Your task to perform on an android device: Open calendar and show me the first week of next month Image 0: 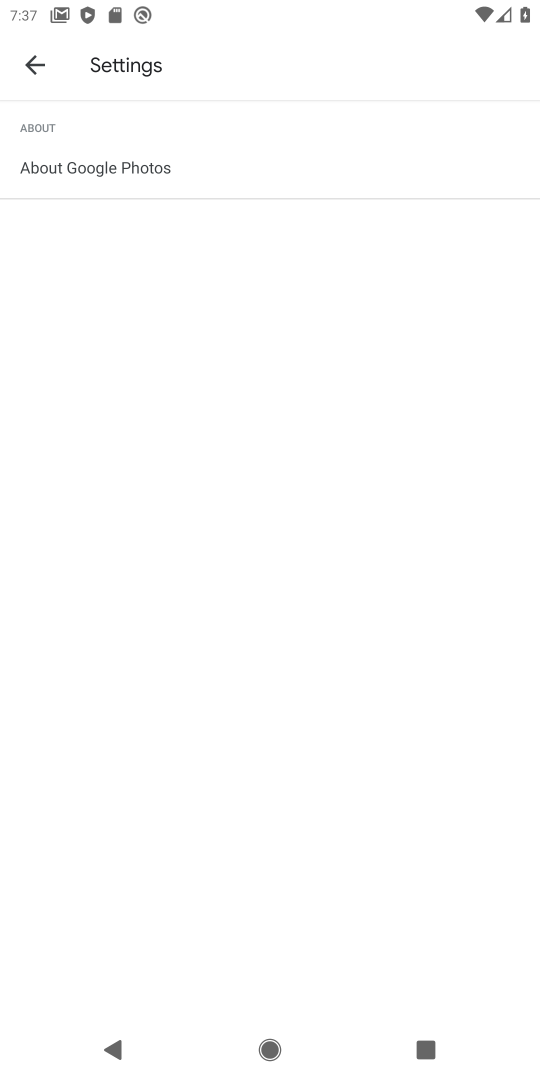
Step 0: press home button
Your task to perform on an android device: Open calendar and show me the first week of next month Image 1: 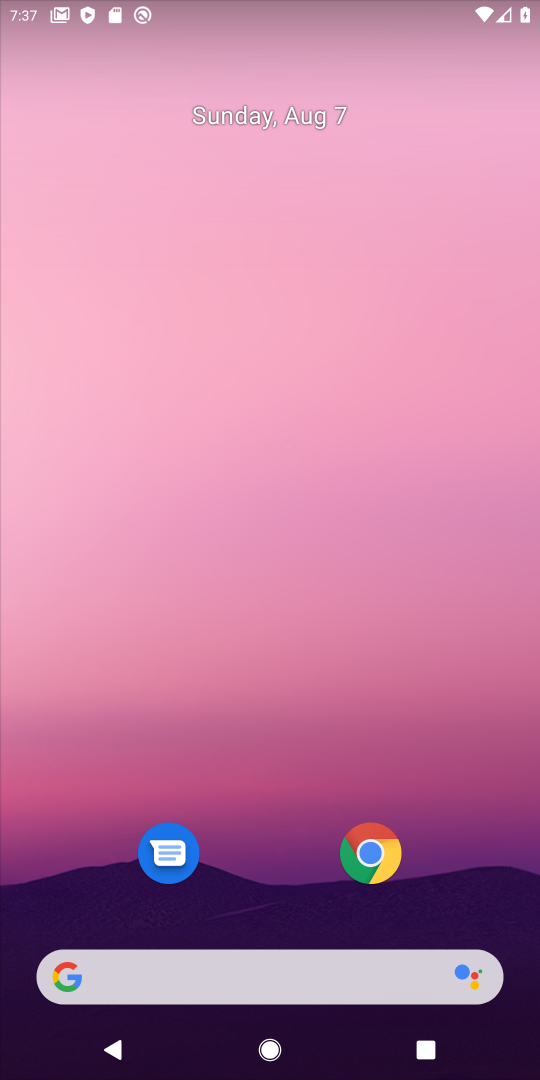
Step 1: drag from (262, 836) to (272, 5)
Your task to perform on an android device: Open calendar and show me the first week of next month Image 2: 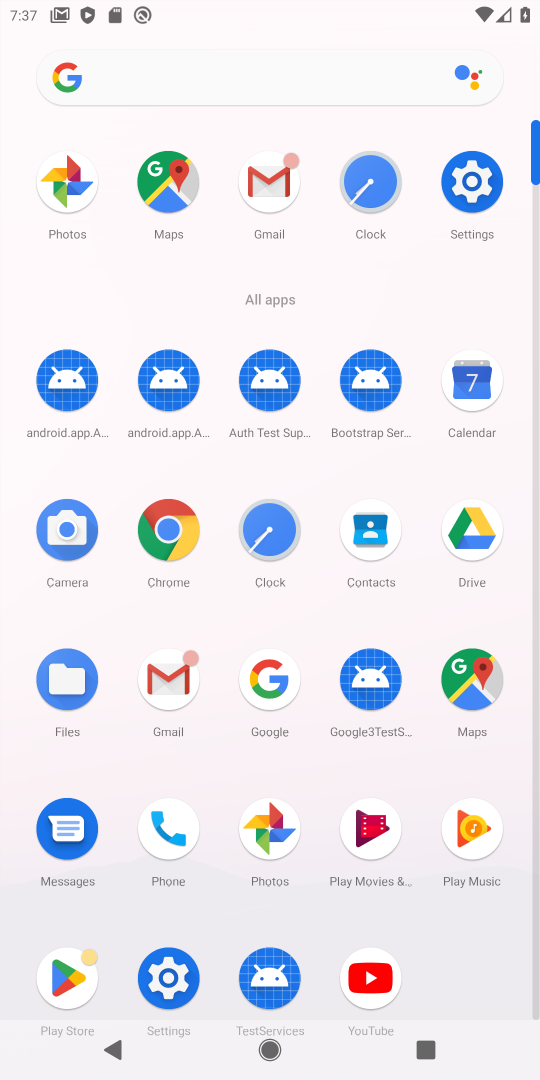
Step 2: click (471, 403)
Your task to perform on an android device: Open calendar and show me the first week of next month Image 3: 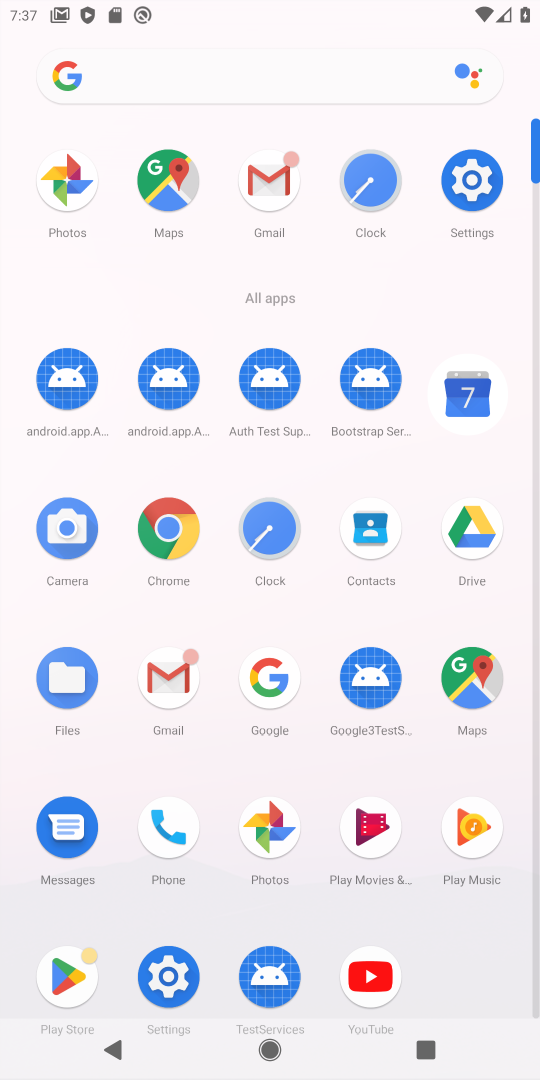
Step 3: click (483, 407)
Your task to perform on an android device: Open calendar and show me the first week of next month Image 4: 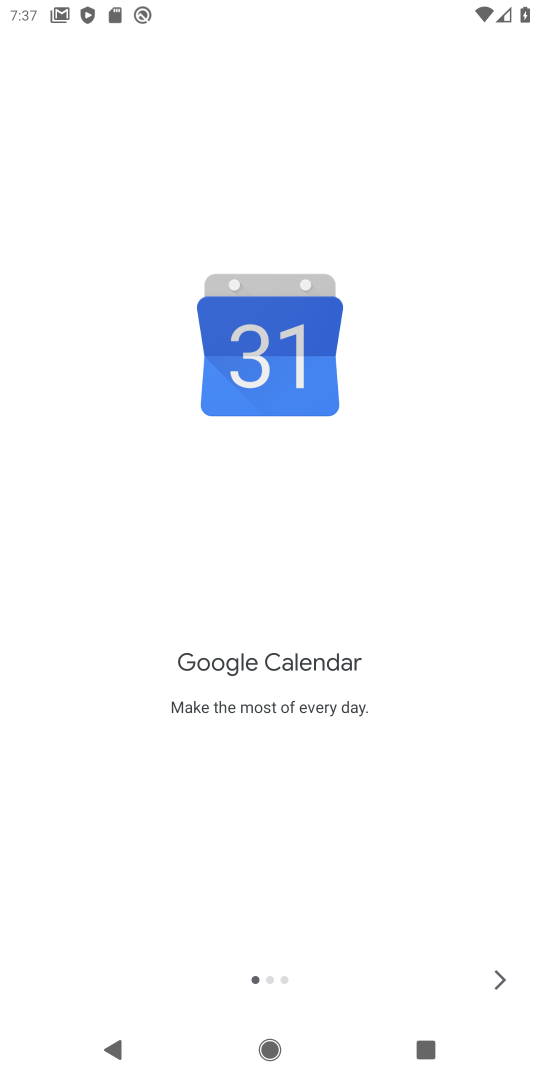
Step 4: click (507, 972)
Your task to perform on an android device: Open calendar and show me the first week of next month Image 5: 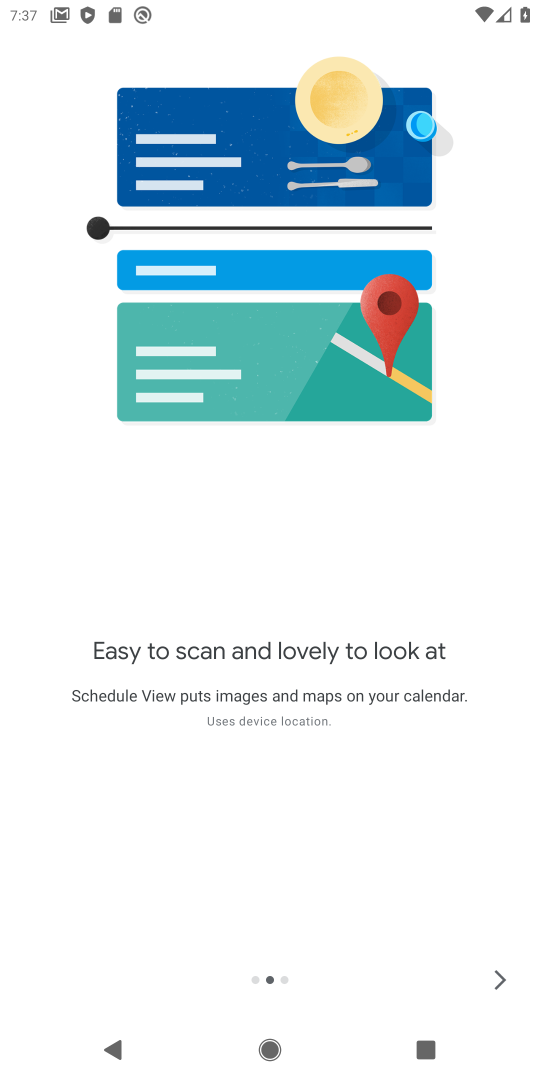
Step 5: click (505, 975)
Your task to perform on an android device: Open calendar and show me the first week of next month Image 6: 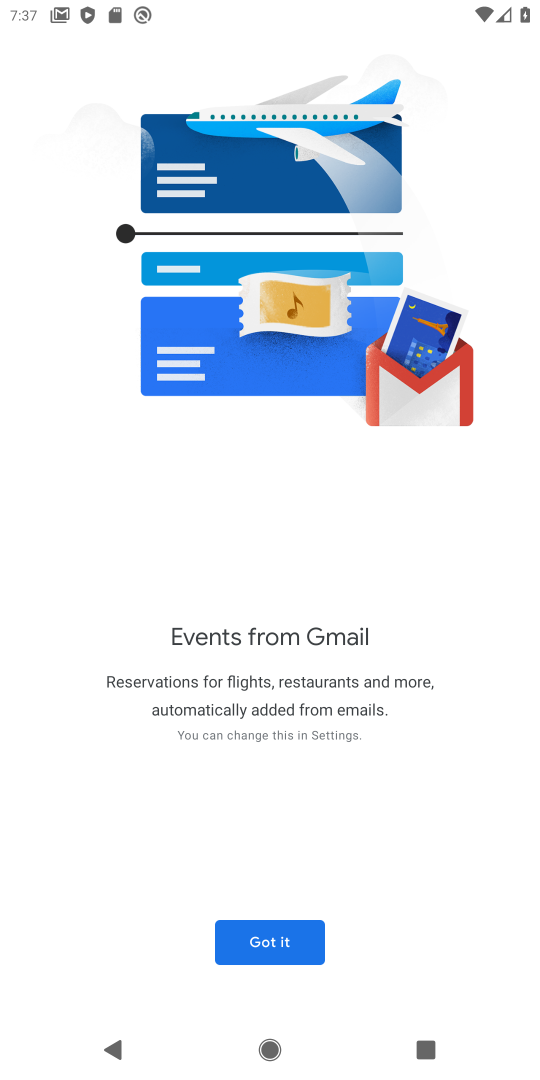
Step 6: click (291, 951)
Your task to perform on an android device: Open calendar and show me the first week of next month Image 7: 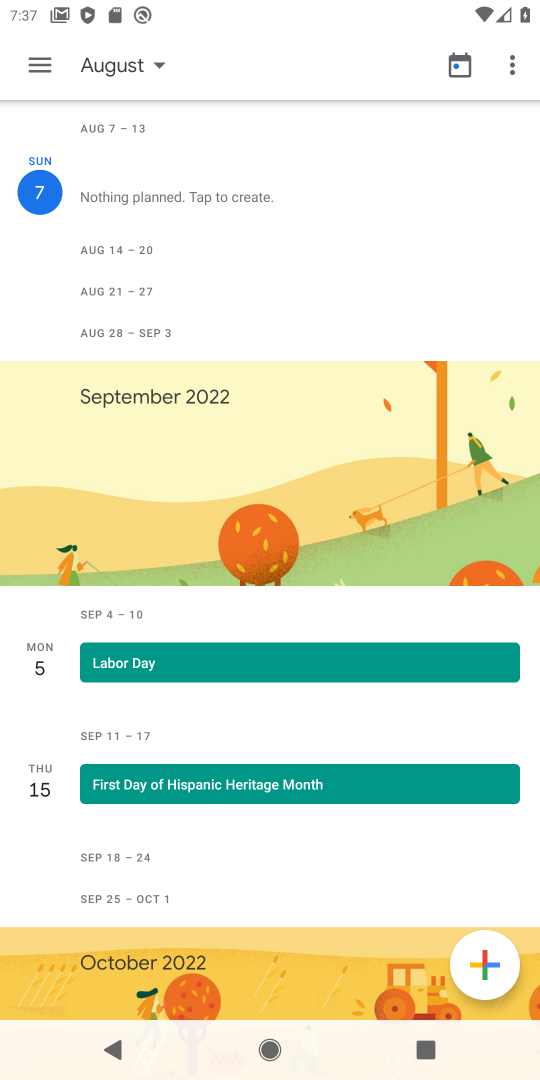
Step 7: click (33, 58)
Your task to perform on an android device: Open calendar and show me the first week of next month Image 8: 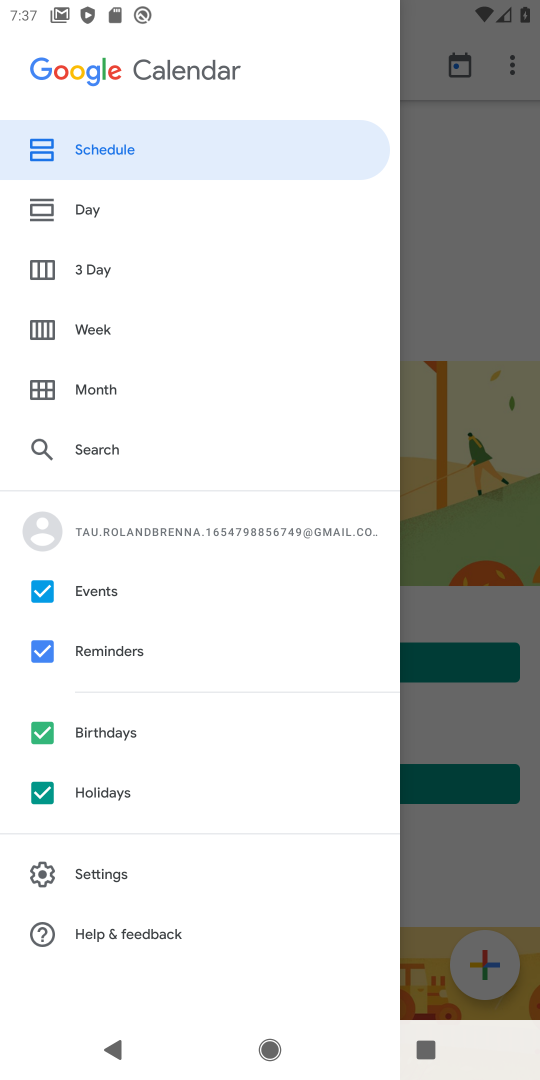
Step 8: click (94, 328)
Your task to perform on an android device: Open calendar and show me the first week of next month Image 9: 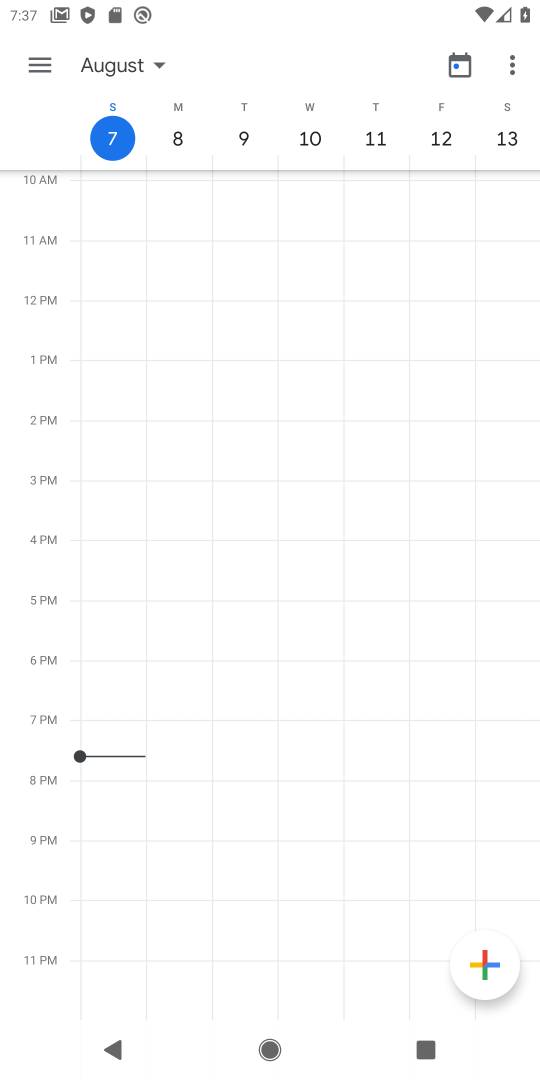
Step 9: click (144, 51)
Your task to perform on an android device: Open calendar and show me the first week of next month Image 10: 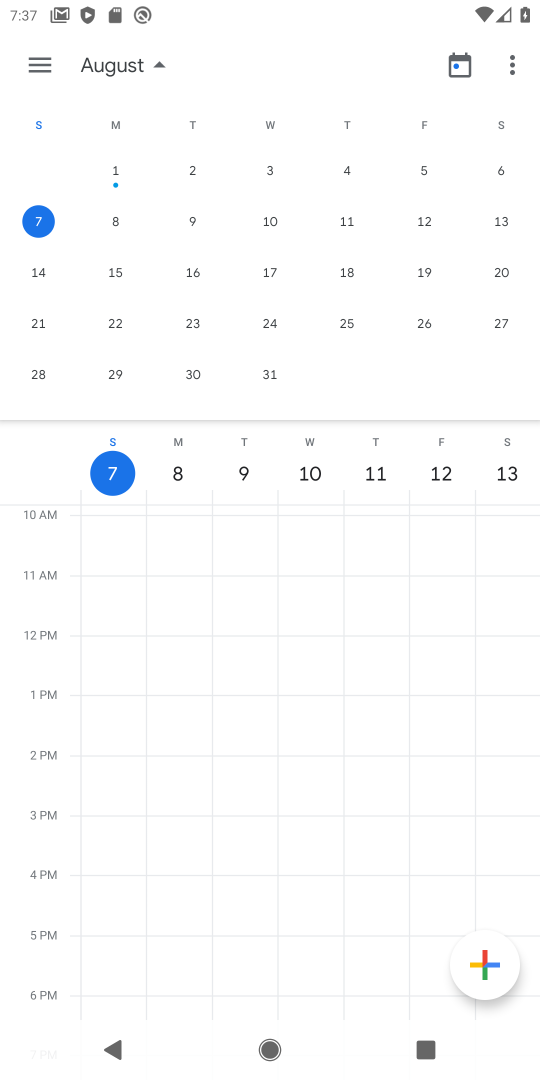
Step 10: drag from (458, 301) to (0, 251)
Your task to perform on an android device: Open calendar and show me the first week of next month Image 11: 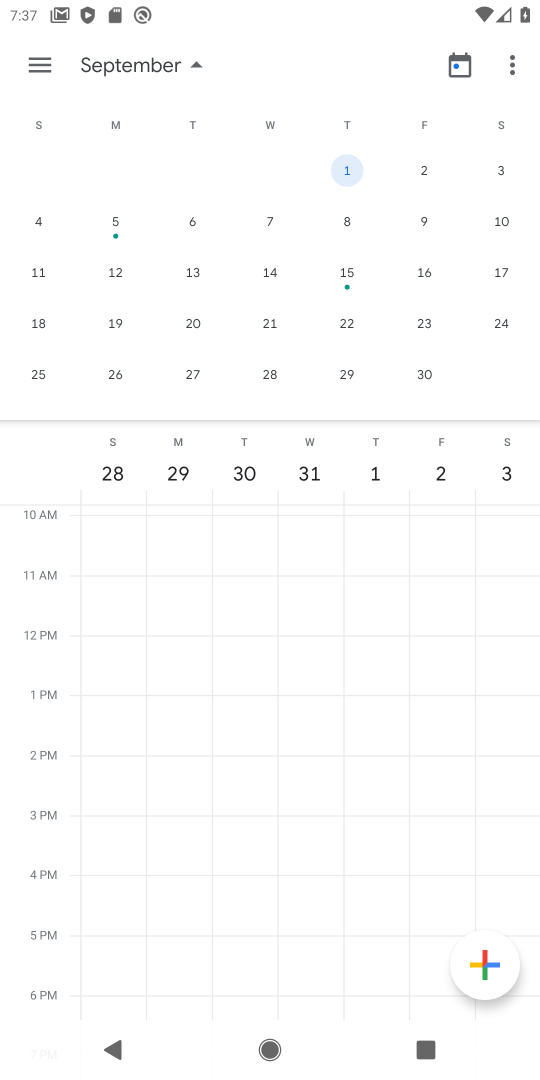
Step 11: click (110, 218)
Your task to perform on an android device: Open calendar and show me the first week of next month Image 12: 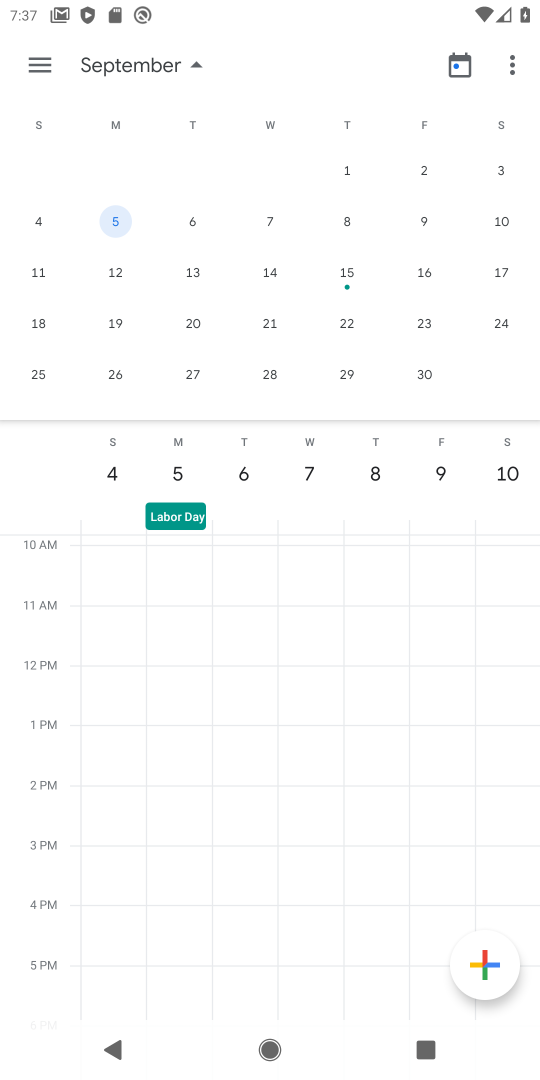
Step 12: task complete